Your task to perform on an android device: Open battery settings Image 0: 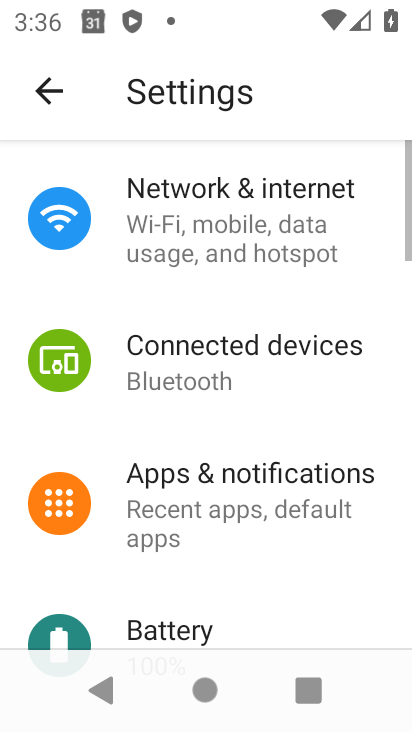
Step 0: press home button
Your task to perform on an android device: Open battery settings Image 1: 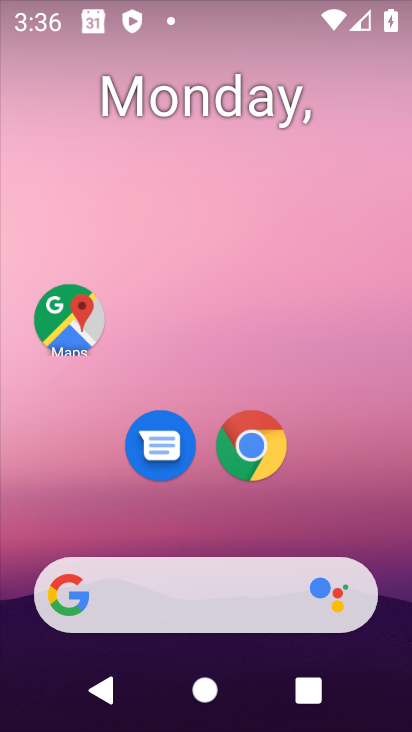
Step 1: drag from (336, 513) to (317, 167)
Your task to perform on an android device: Open battery settings Image 2: 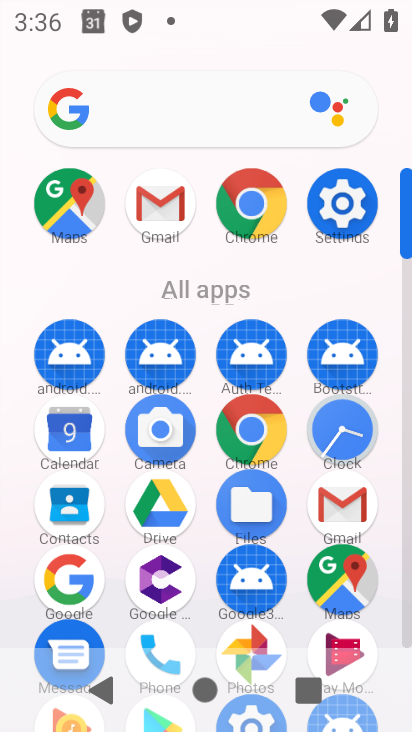
Step 2: drag from (288, 625) to (278, 220)
Your task to perform on an android device: Open battery settings Image 3: 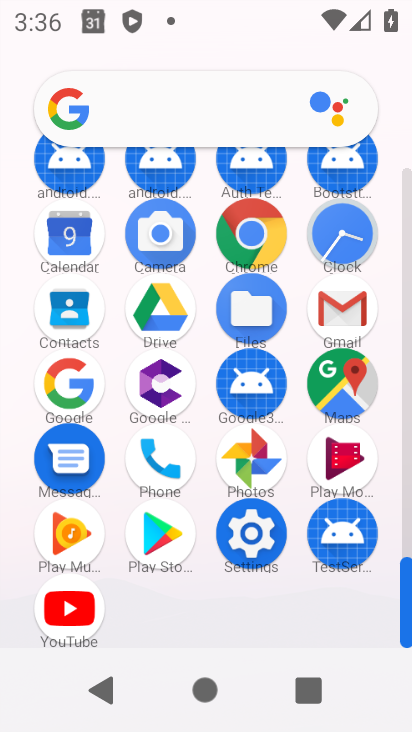
Step 3: click (248, 536)
Your task to perform on an android device: Open battery settings Image 4: 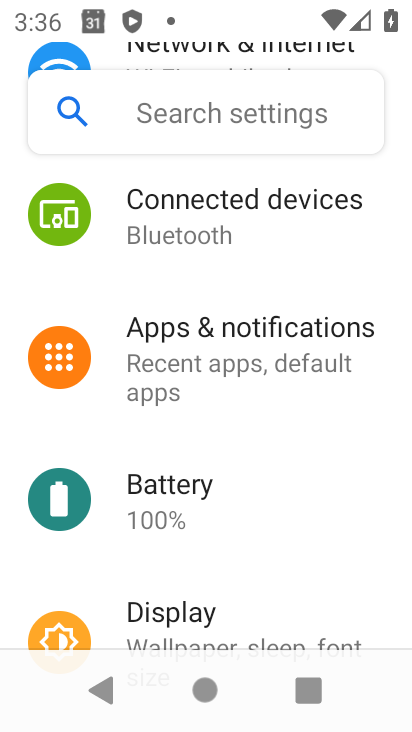
Step 4: click (172, 488)
Your task to perform on an android device: Open battery settings Image 5: 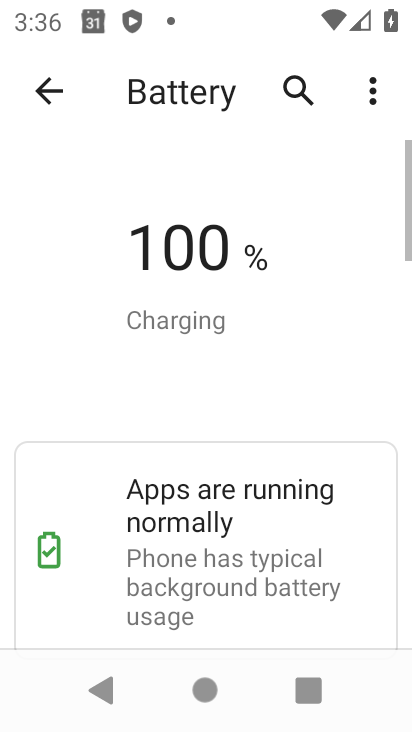
Step 5: task complete